Your task to perform on an android device: toggle pop-ups in chrome Image 0: 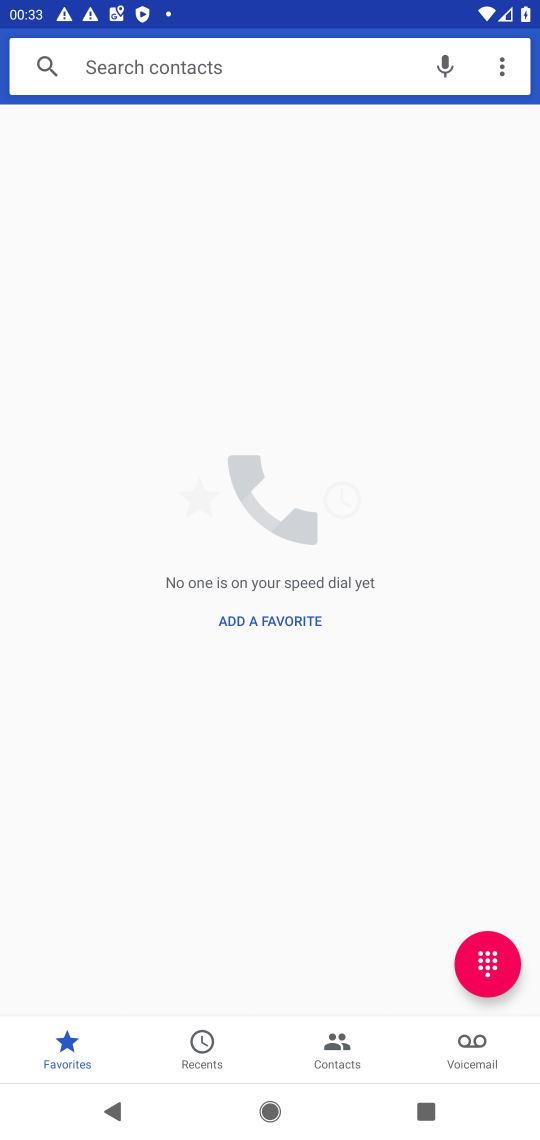
Step 0: press home button
Your task to perform on an android device: toggle pop-ups in chrome Image 1: 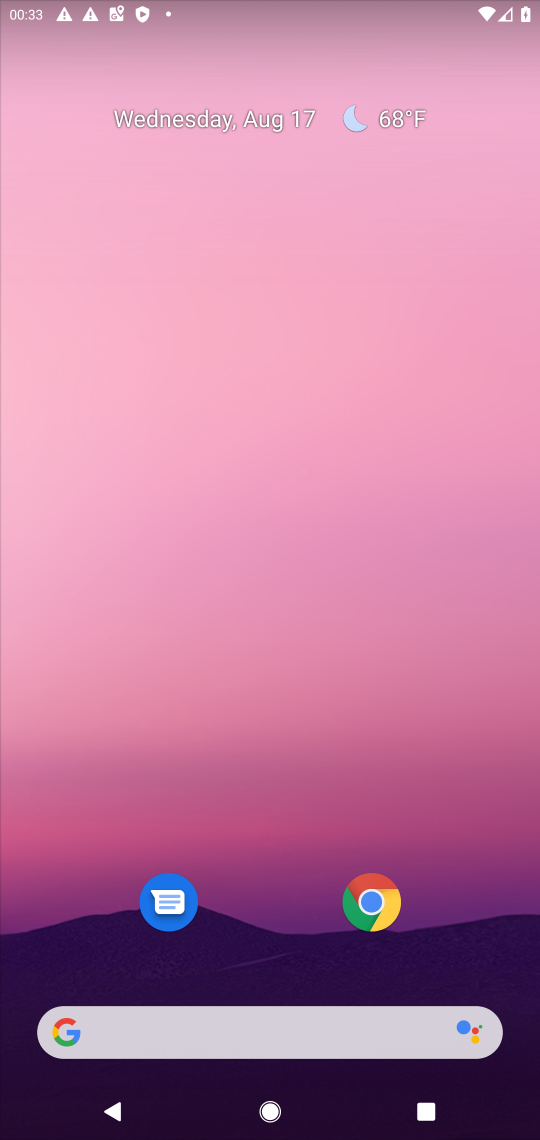
Step 1: click (378, 900)
Your task to perform on an android device: toggle pop-ups in chrome Image 2: 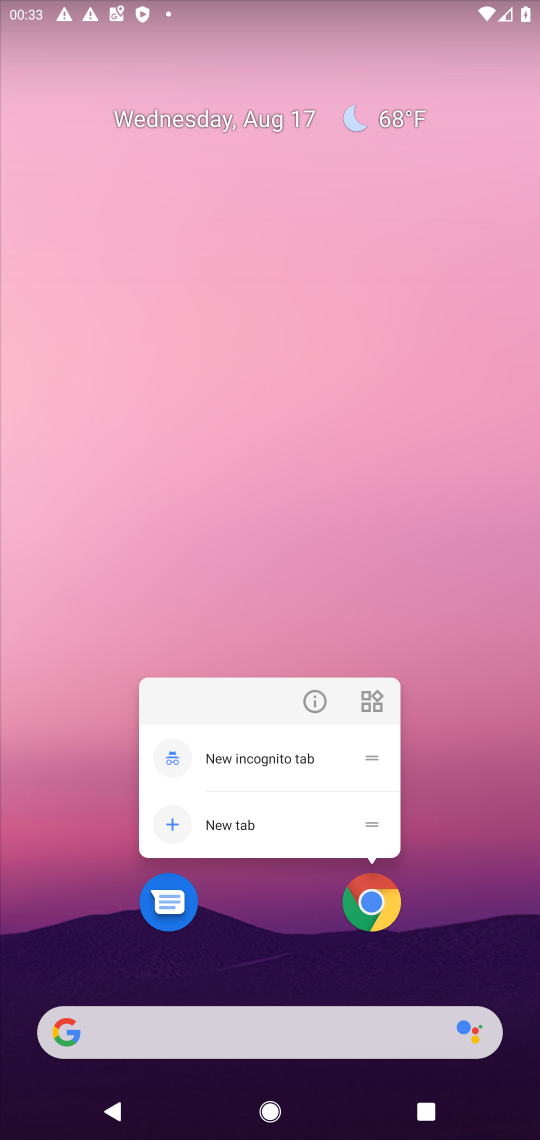
Step 2: click (378, 900)
Your task to perform on an android device: toggle pop-ups in chrome Image 3: 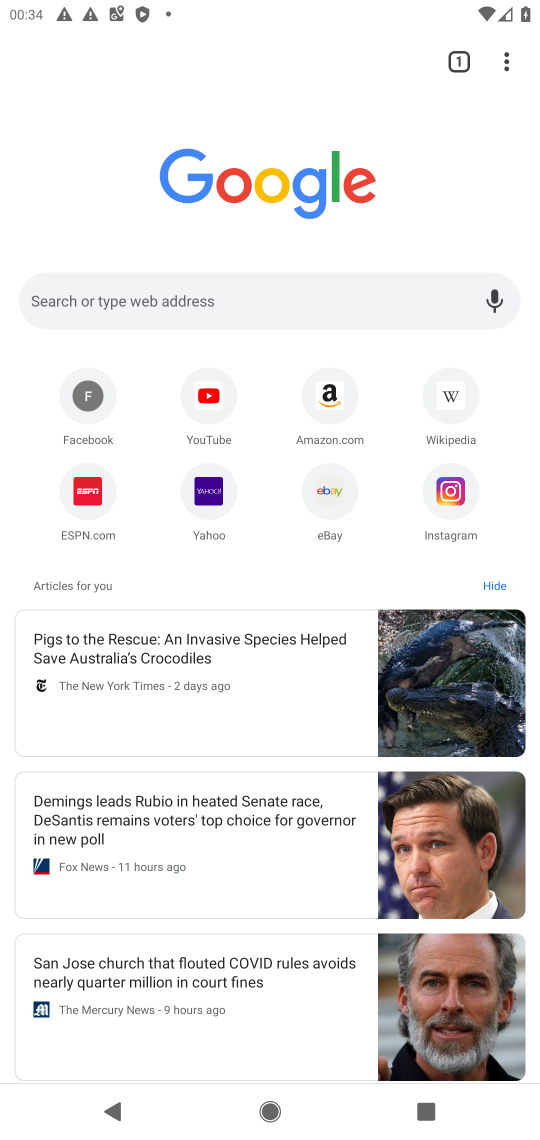
Step 3: click (508, 47)
Your task to perform on an android device: toggle pop-ups in chrome Image 4: 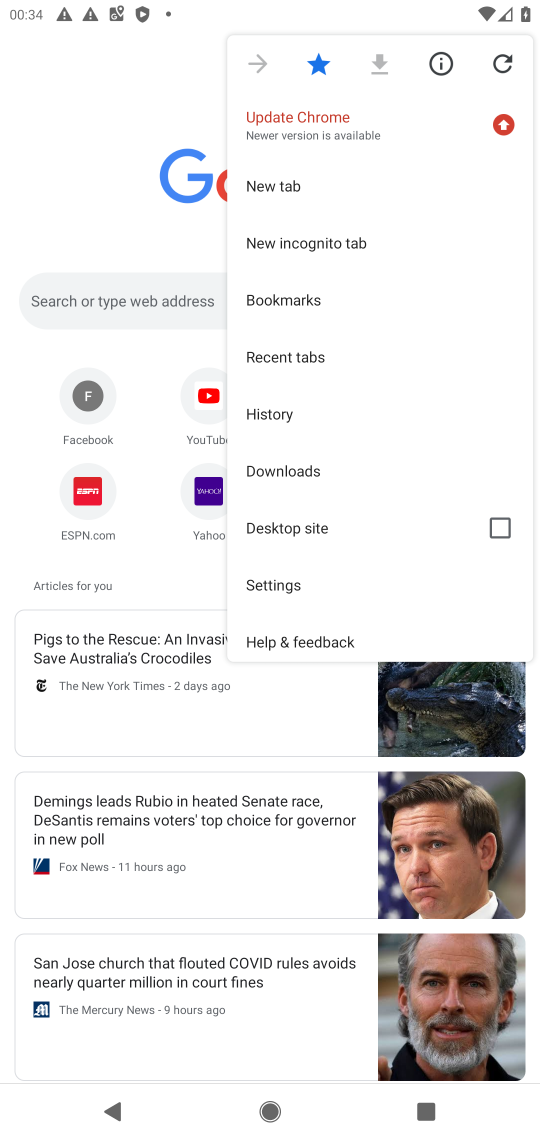
Step 4: click (284, 579)
Your task to perform on an android device: toggle pop-ups in chrome Image 5: 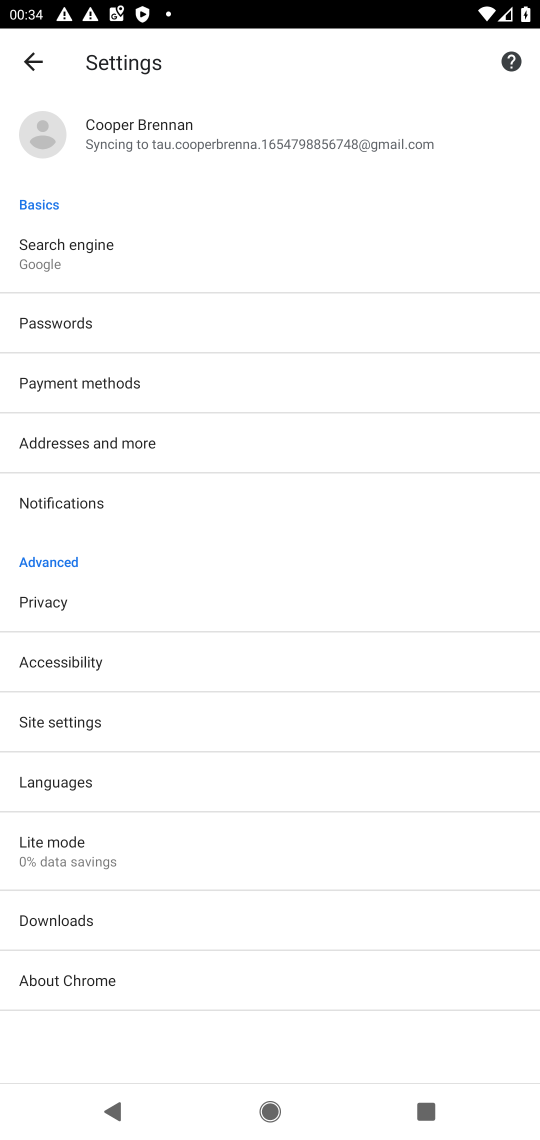
Step 5: click (104, 712)
Your task to perform on an android device: toggle pop-ups in chrome Image 6: 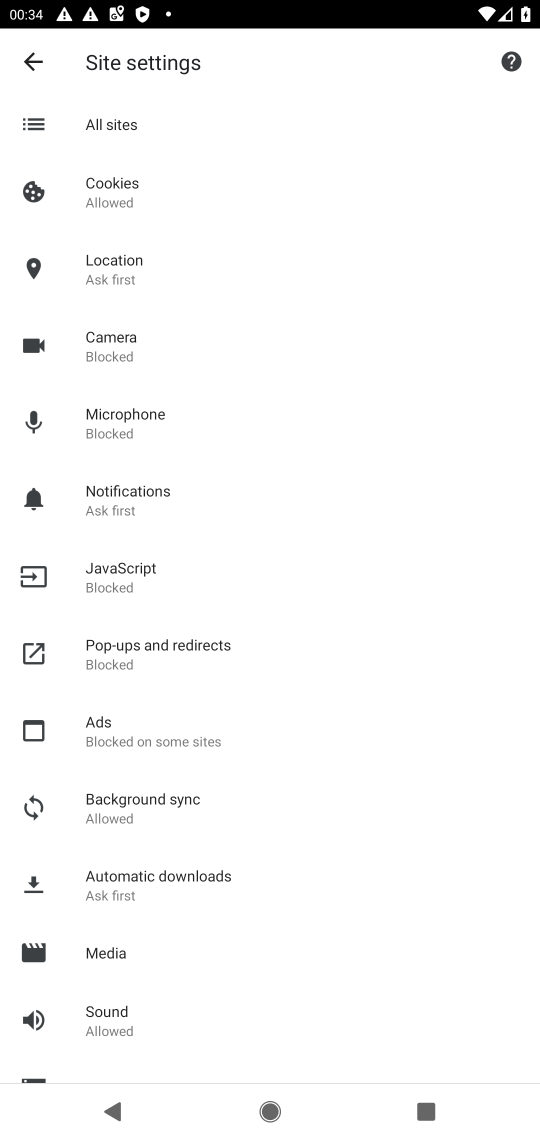
Step 6: click (119, 652)
Your task to perform on an android device: toggle pop-ups in chrome Image 7: 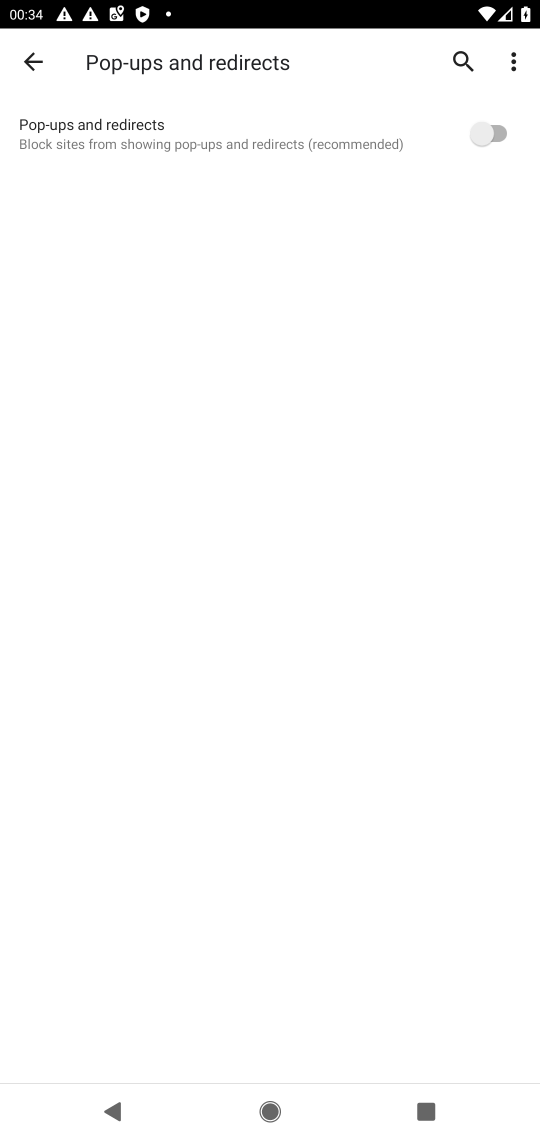
Step 7: click (444, 127)
Your task to perform on an android device: toggle pop-ups in chrome Image 8: 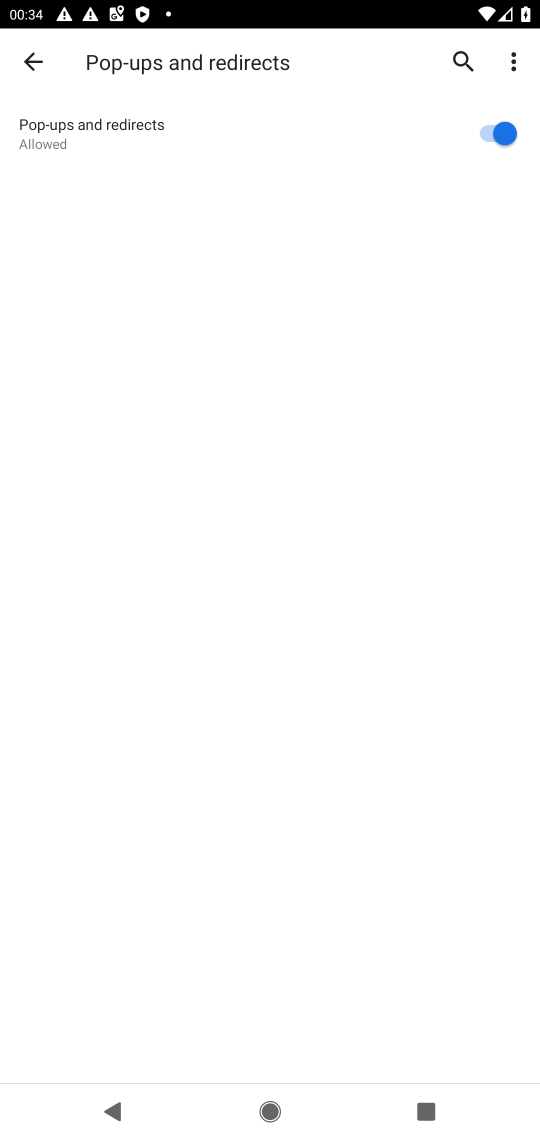
Step 8: task complete